Your task to perform on an android device: toggle pop-ups in chrome Image 0: 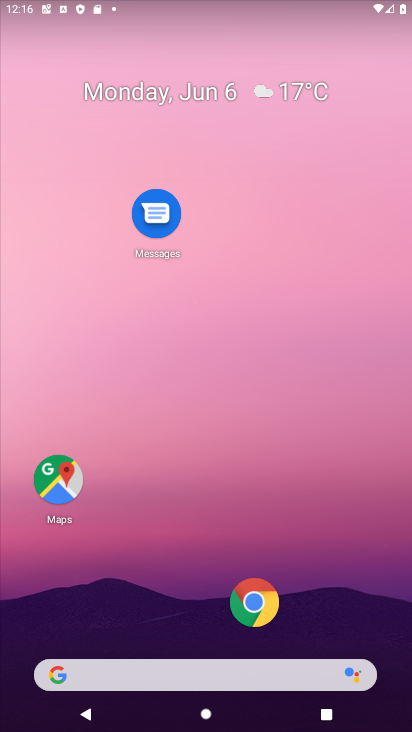
Step 0: click (262, 611)
Your task to perform on an android device: toggle pop-ups in chrome Image 1: 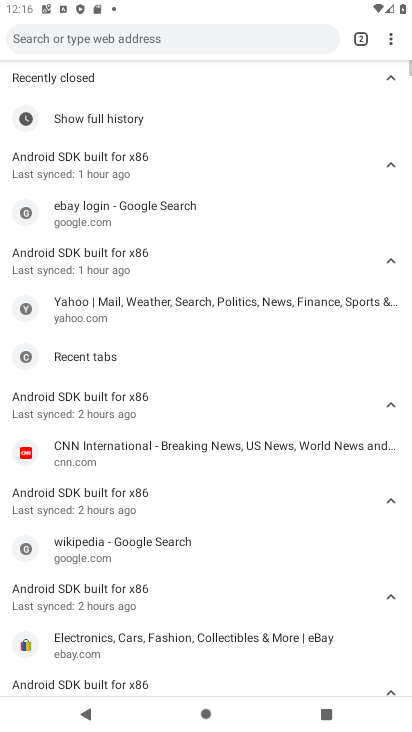
Step 1: task complete